Your task to perform on an android device: Open Maps and search for coffee Image 0: 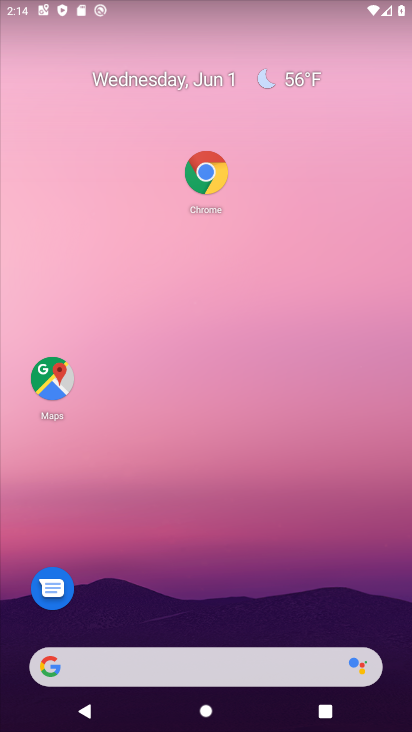
Step 0: drag from (233, 562) to (204, 178)
Your task to perform on an android device: Open Maps and search for coffee Image 1: 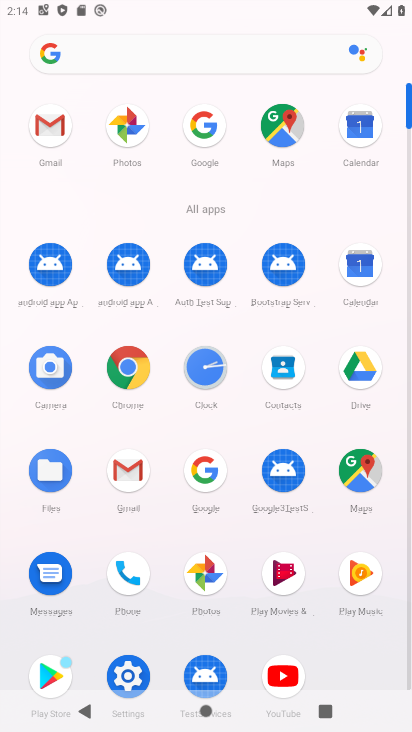
Step 1: click (374, 467)
Your task to perform on an android device: Open Maps and search for coffee Image 2: 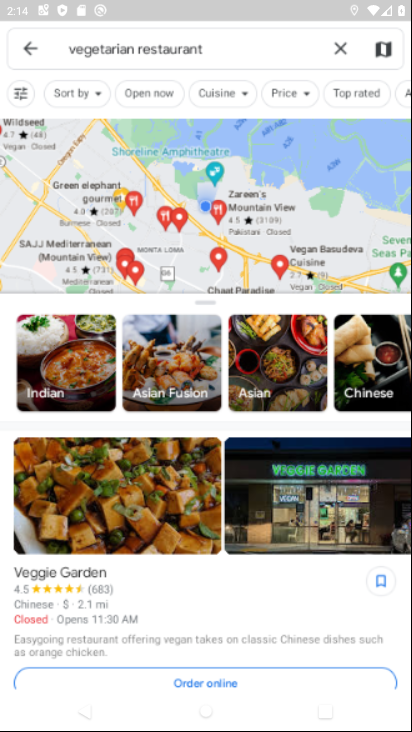
Step 2: click (337, 46)
Your task to perform on an android device: Open Maps and search for coffee Image 3: 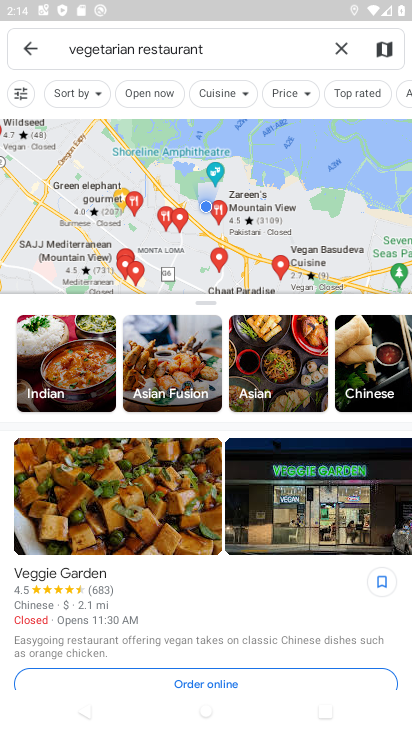
Step 3: click (315, 47)
Your task to perform on an android device: Open Maps and search for coffee Image 4: 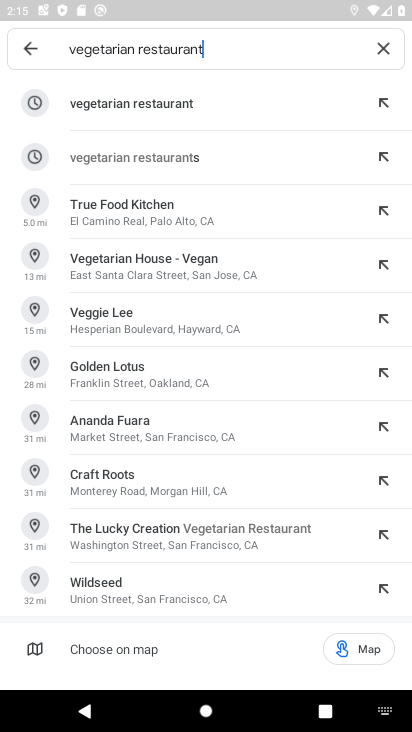
Step 4: click (376, 47)
Your task to perform on an android device: Open Maps and search for coffee Image 5: 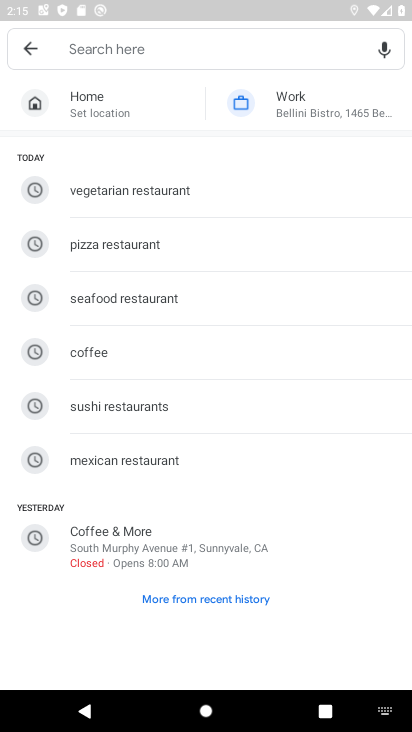
Step 5: click (125, 360)
Your task to perform on an android device: Open Maps and search for coffee Image 6: 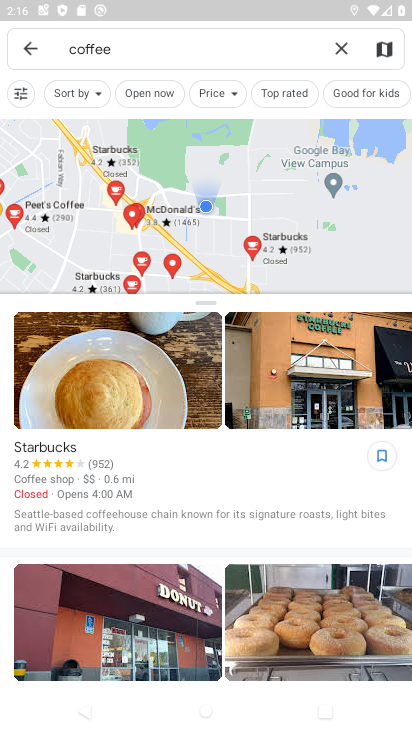
Step 6: task complete